Your task to perform on an android device: open chrome and create a bookmark for the current page Image 0: 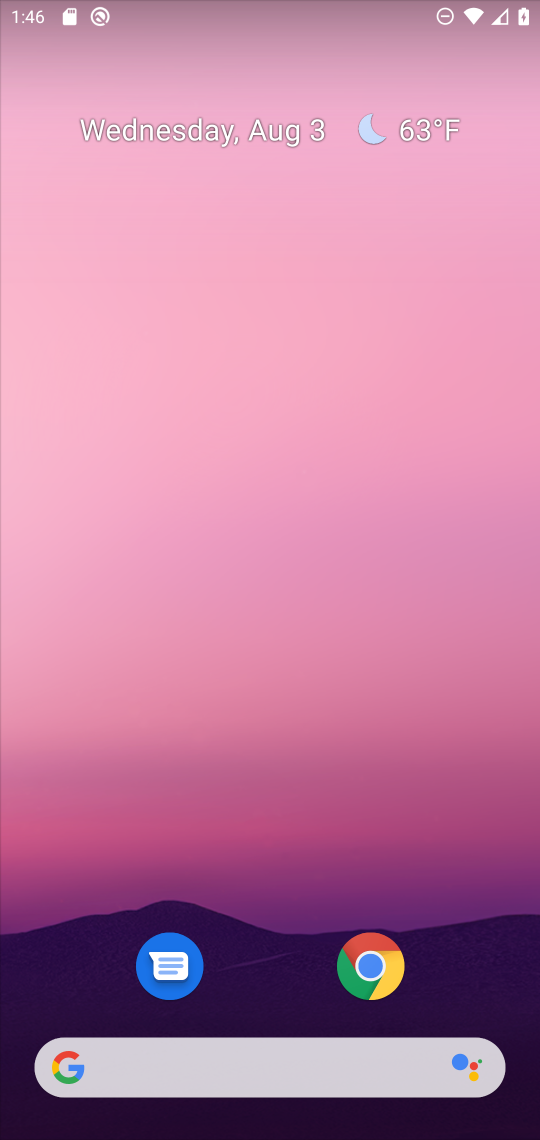
Step 0: click (350, 953)
Your task to perform on an android device: open chrome and create a bookmark for the current page Image 1: 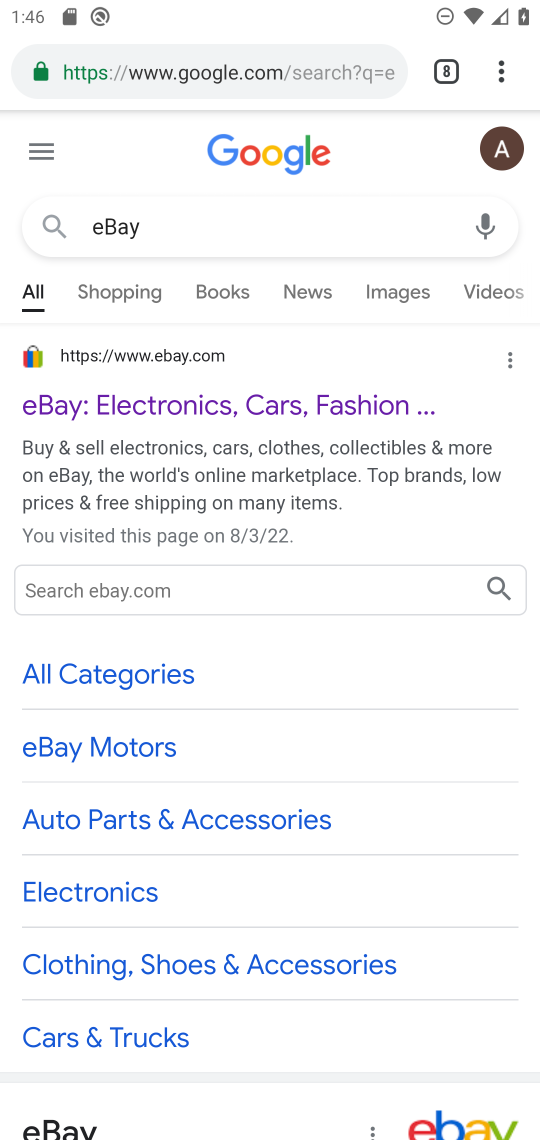
Step 1: click (495, 59)
Your task to perform on an android device: open chrome and create a bookmark for the current page Image 2: 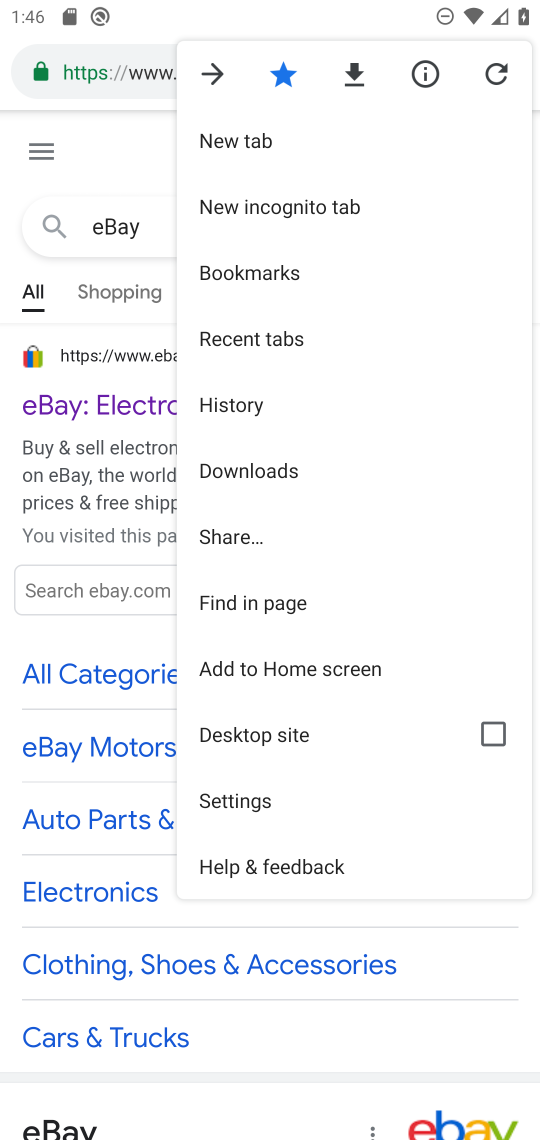
Step 2: task complete